Your task to perform on an android device: show emergency info Image 0: 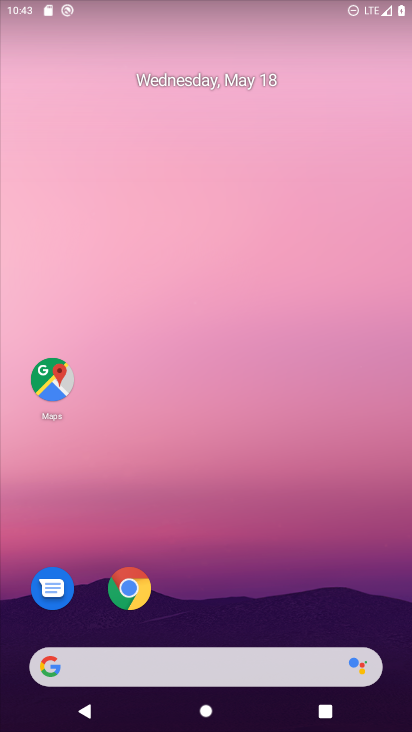
Step 0: drag from (328, 630) to (408, 472)
Your task to perform on an android device: show emergency info Image 1: 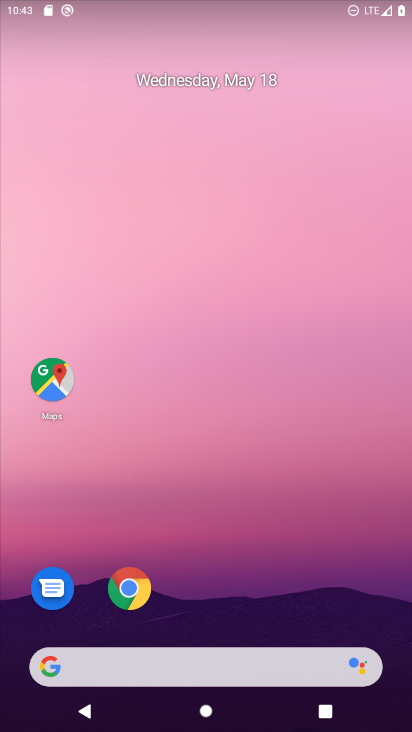
Step 1: drag from (255, 633) to (266, 4)
Your task to perform on an android device: show emergency info Image 2: 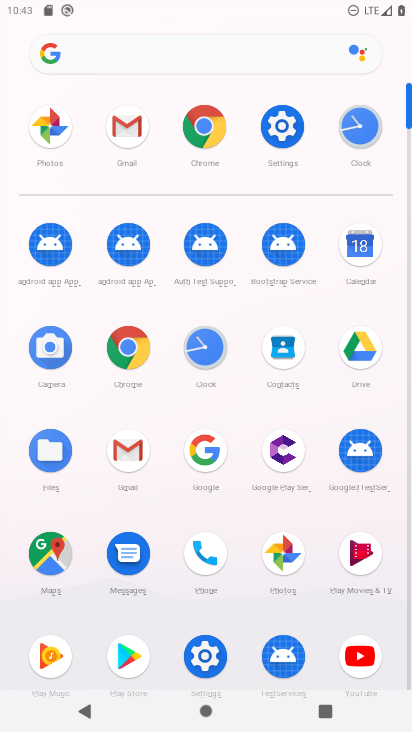
Step 2: click (273, 114)
Your task to perform on an android device: show emergency info Image 3: 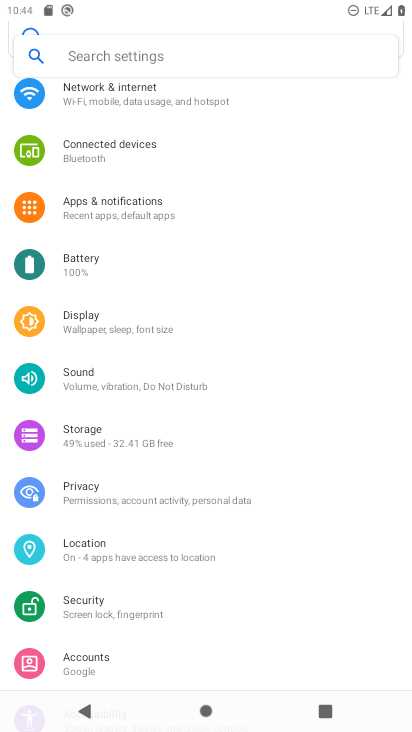
Step 3: drag from (206, 615) to (241, 187)
Your task to perform on an android device: show emergency info Image 4: 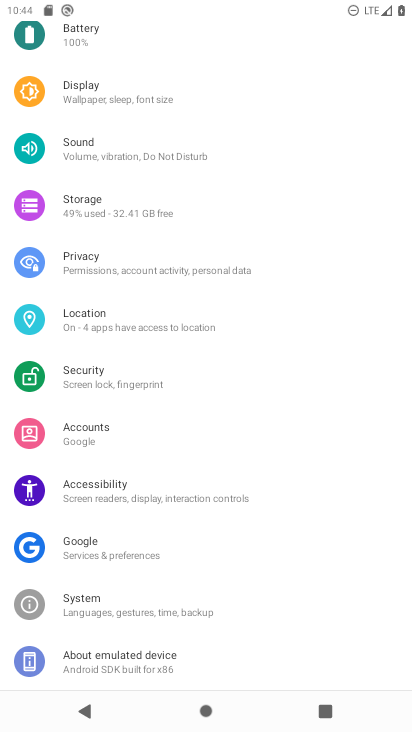
Step 4: click (139, 674)
Your task to perform on an android device: show emergency info Image 5: 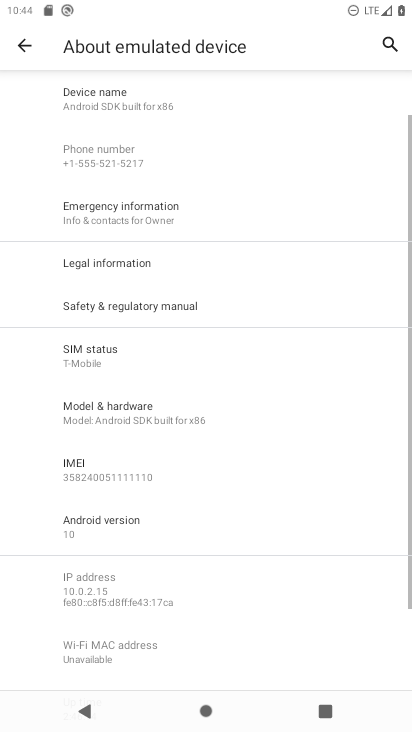
Step 5: click (92, 211)
Your task to perform on an android device: show emergency info Image 6: 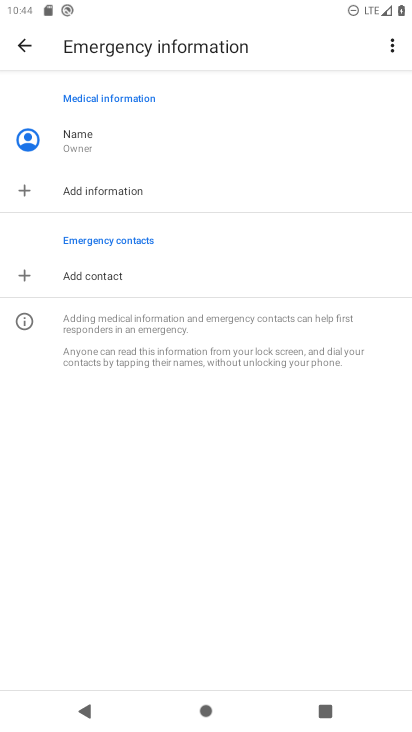
Step 6: task complete